Your task to perform on an android device: turn on javascript in the chrome app Image 0: 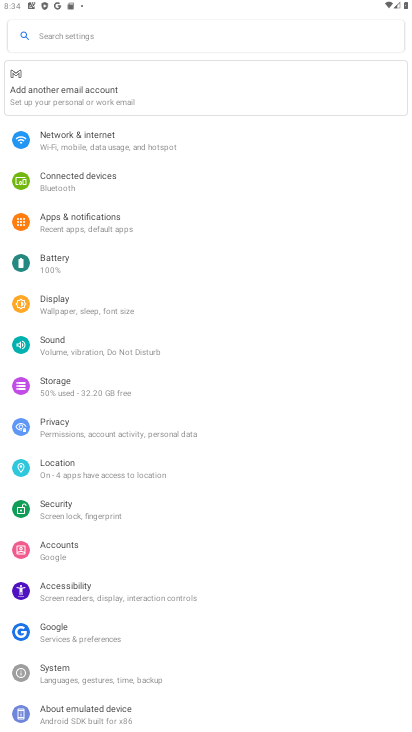
Step 0: press home button
Your task to perform on an android device: turn on javascript in the chrome app Image 1: 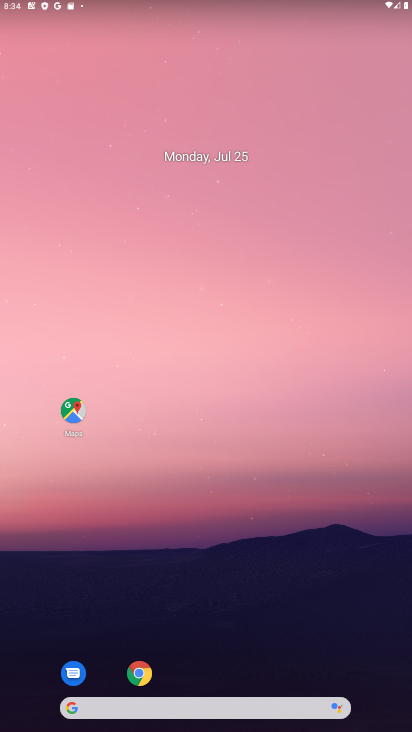
Step 1: drag from (171, 677) to (172, 155)
Your task to perform on an android device: turn on javascript in the chrome app Image 2: 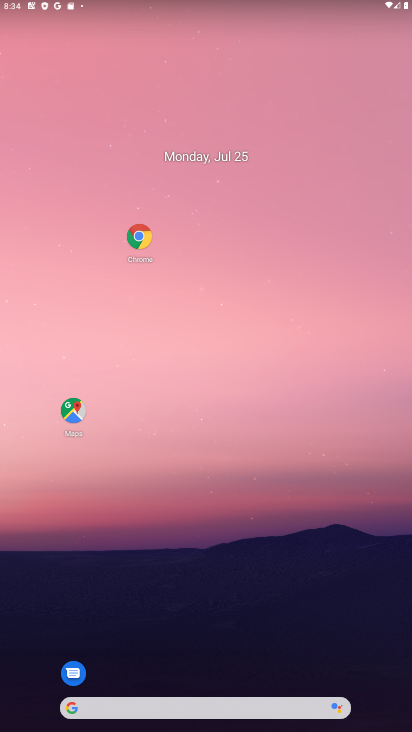
Step 2: drag from (277, 690) to (357, 110)
Your task to perform on an android device: turn on javascript in the chrome app Image 3: 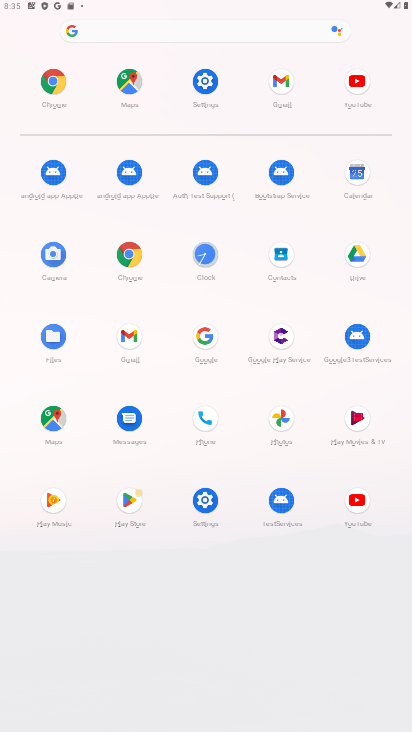
Step 3: click (206, 506)
Your task to perform on an android device: turn on javascript in the chrome app Image 4: 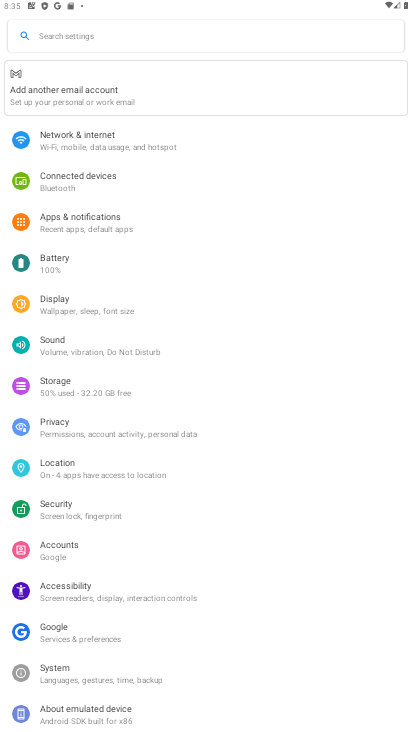
Step 4: press back button
Your task to perform on an android device: turn on javascript in the chrome app Image 5: 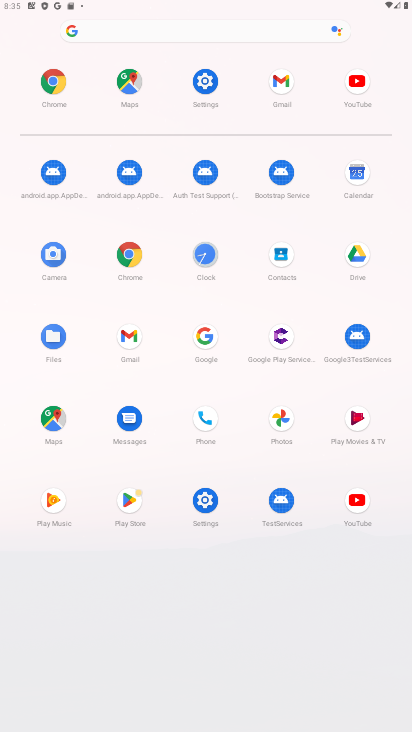
Step 5: click (59, 85)
Your task to perform on an android device: turn on javascript in the chrome app Image 6: 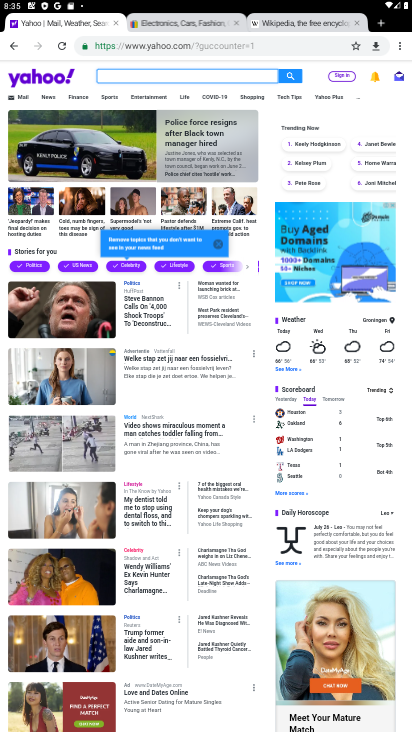
Step 6: click (396, 45)
Your task to perform on an android device: turn on javascript in the chrome app Image 7: 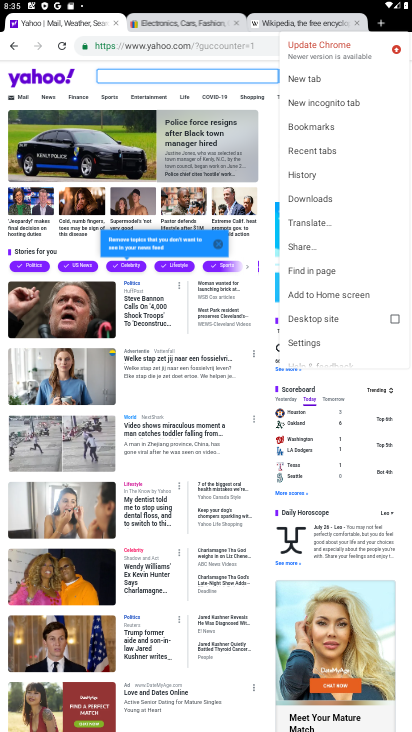
Step 7: click (342, 340)
Your task to perform on an android device: turn on javascript in the chrome app Image 8: 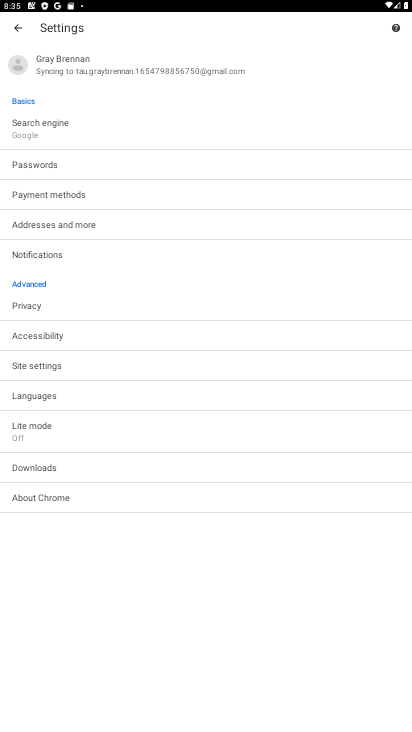
Step 8: task complete